Your task to perform on an android device: open wifi settings Image 0: 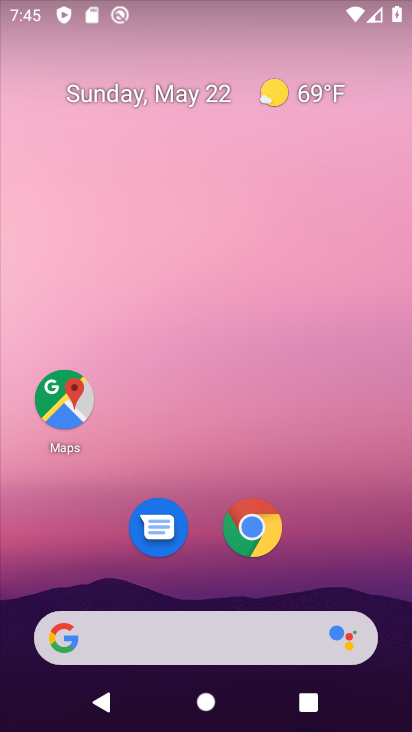
Step 0: drag from (167, 11) to (155, 627)
Your task to perform on an android device: open wifi settings Image 1: 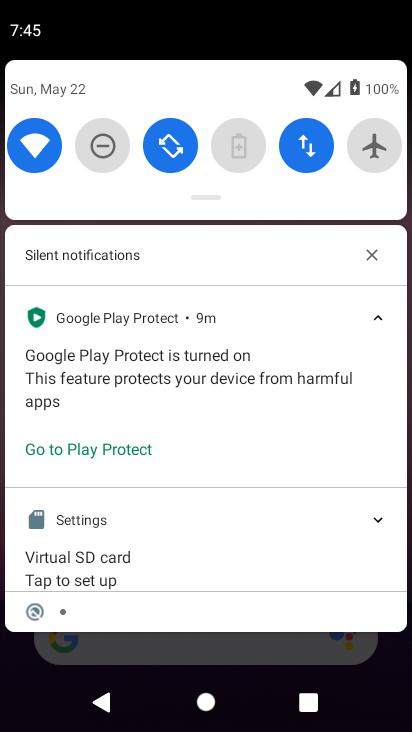
Step 1: drag from (232, 660) to (259, 124)
Your task to perform on an android device: open wifi settings Image 2: 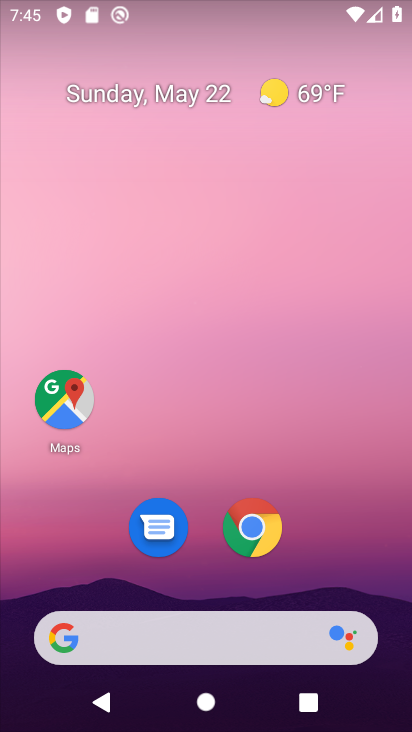
Step 2: drag from (216, 574) to (233, 84)
Your task to perform on an android device: open wifi settings Image 3: 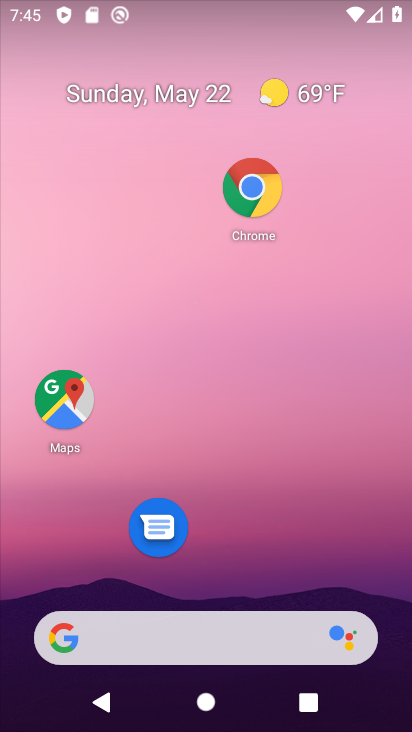
Step 3: drag from (204, 590) to (199, 36)
Your task to perform on an android device: open wifi settings Image 4: 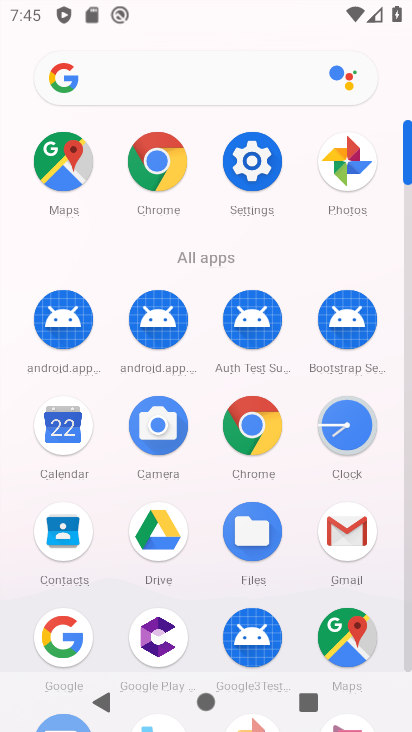
Step 4: click (251, 154)
Your task to perform on an android device: open wifi settings Image 5: 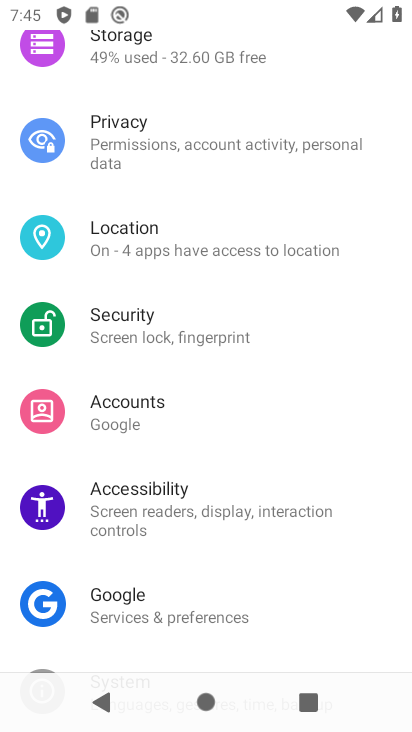
Step 5: drag from (189, 92) to (205, 642)
Your task to perform on an android device: open wifi settings Image 6: 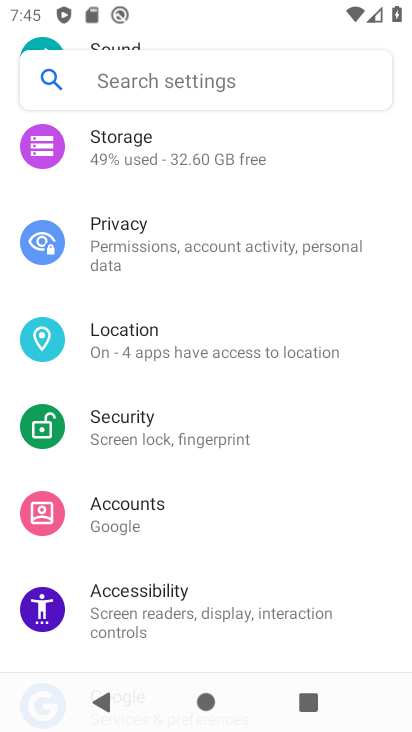
Step 6: drag from (176, 164) to (172, 658)
Your task to perform on an android device: open wifi settings Image 7: 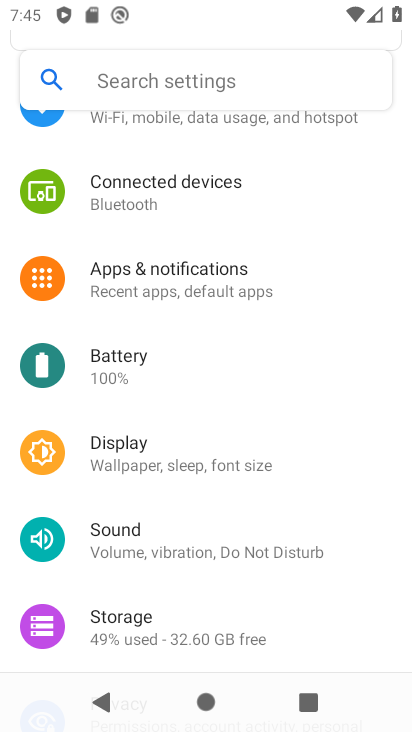
Step 7: drag from (159, 154) to (165, 495)
Your task to perform on an android device: open wifi settings Image 8: 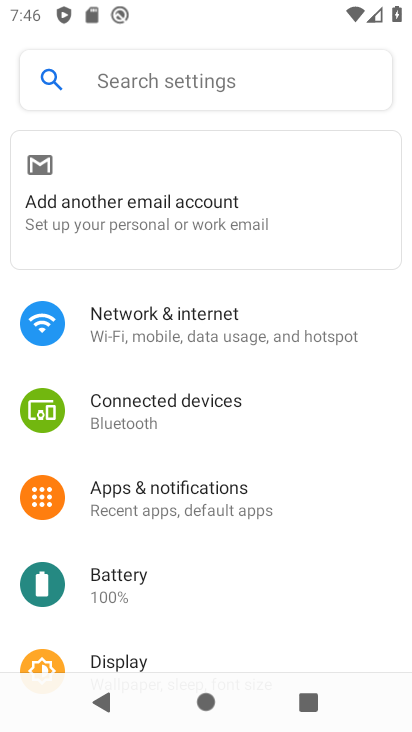
Step 8: click (139, 324)
Your task to perform on an android device: open wifi settings Image 9: 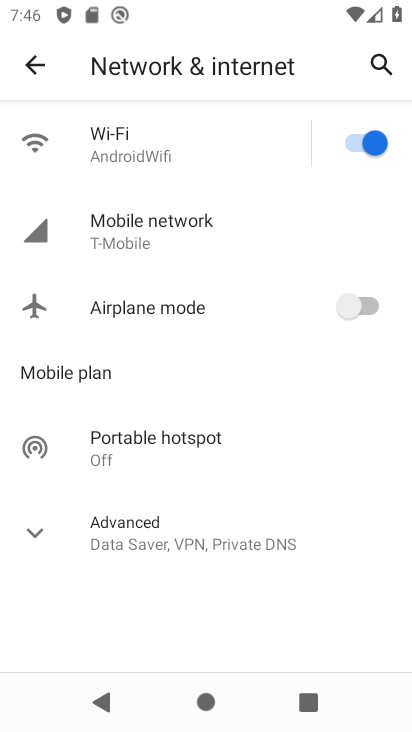
Step 9: click (213, 139)
Your task to perform on an android device: open wifi settings Image 10: 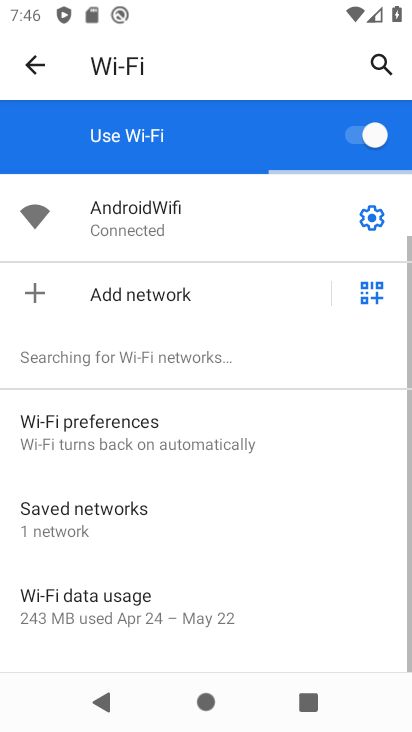
Step 10: task complete